Your task to perform on an android device: Go to calendar. Show me events next week Image 0: 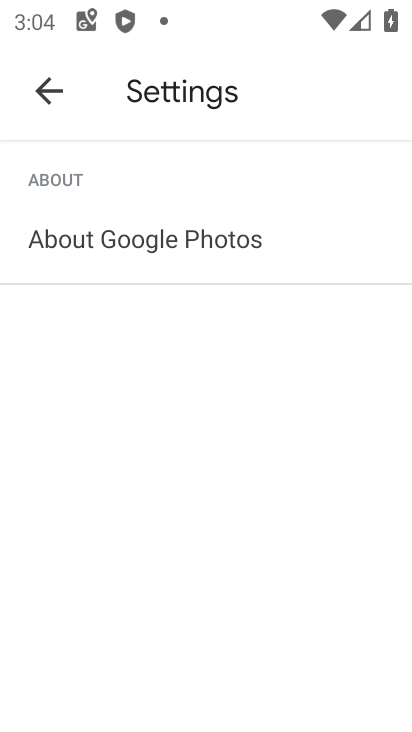
Step 0: press back button
Your task to perform on an android device: Go to calendar. Show me events next week Image 1: 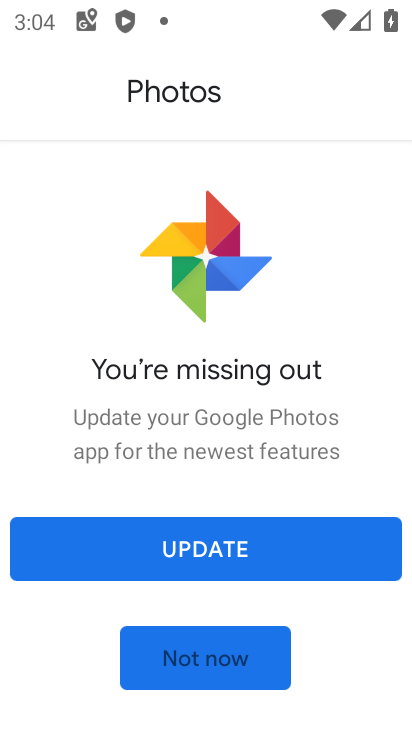
Step 1: click (199, 642)
Your task to perform on an android device: Go to calendar. Show me events next week Image 2: 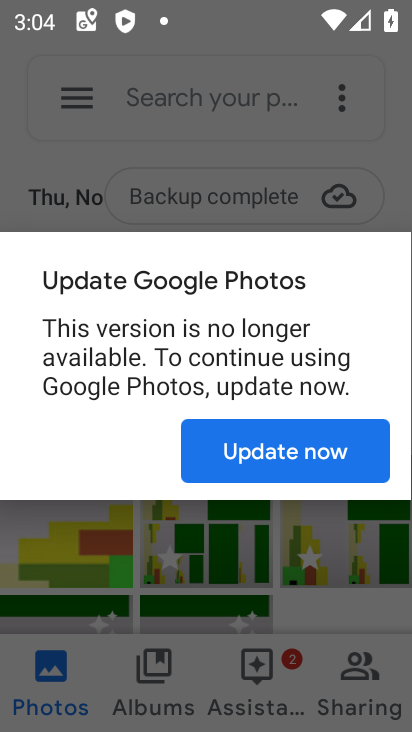
Step 2: press home button
Your task to perform on an android device: Go to calendar. Show me events next week Image 3: 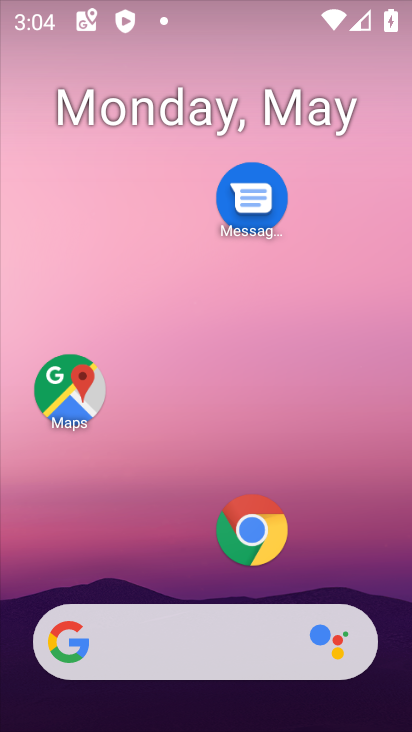
Step 3: drag from (136, 595) to (208, 126)
Your task to perform on an android device: Go to calendar. Show me events next week Image 4: 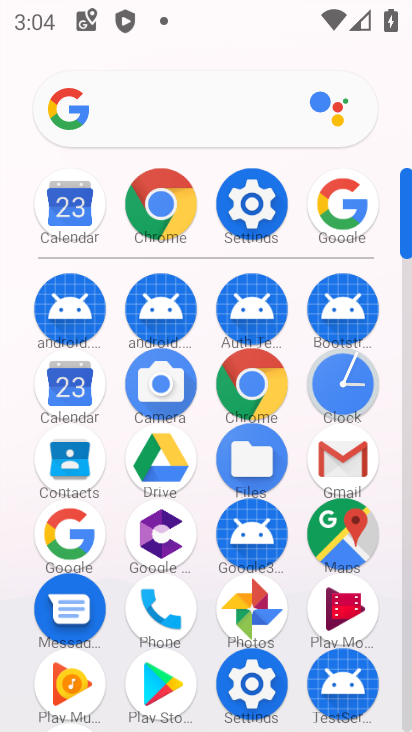
Step 4: click (74, 390)
Your task to perform on an android device: Go to calendar. Show me events next week Image 5: 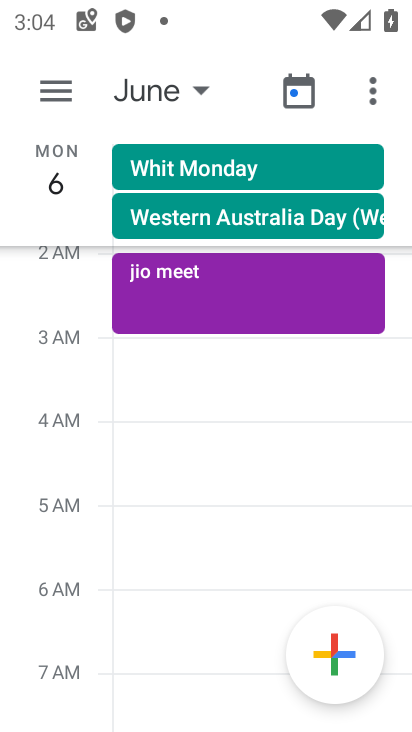
Step 5: click (168, 92)
Your task to perform on an android device: Go to calendar. Show me events next week Image 6: 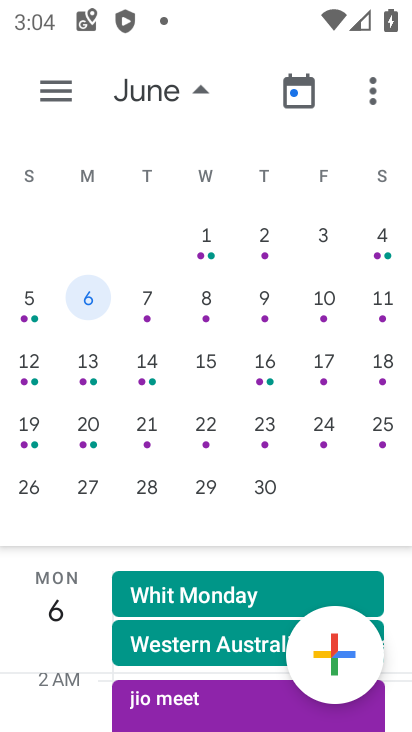
Step 6: drag from (44, 378) to (344, 382)
Your task to perform on an android device: Go to calendar. Show me events next week Image 7: 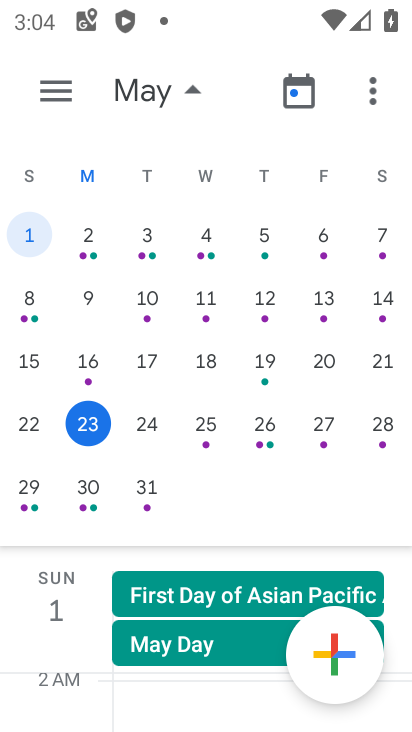
Step 7: click (92, 429)
Your task to perform on an android device: Go to calendar. Show me events next week Image 8: 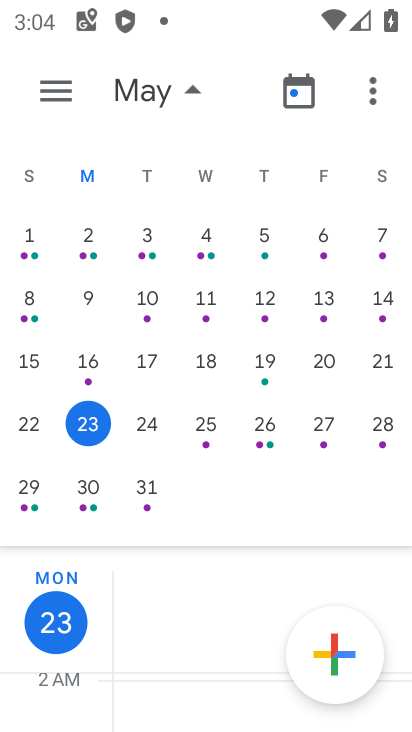
Step 8: click (53, 102)
Your task to perform on an android device: Go to calendar. Show me events next week Image 9: 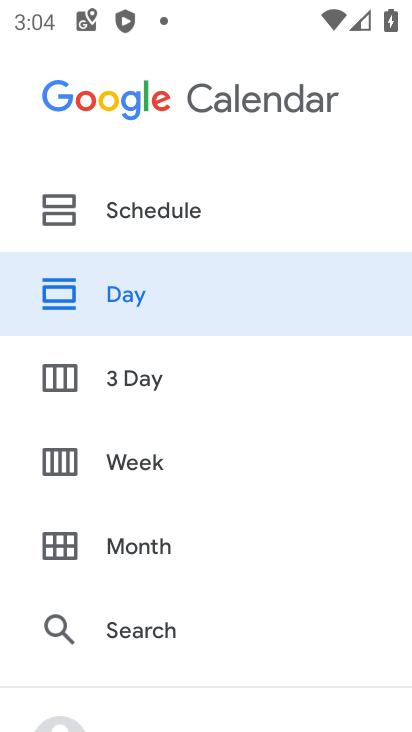
Step 9: click (147, 216)
Your task to perform on an android device: Go to calendar. Show me events next week Image 10: 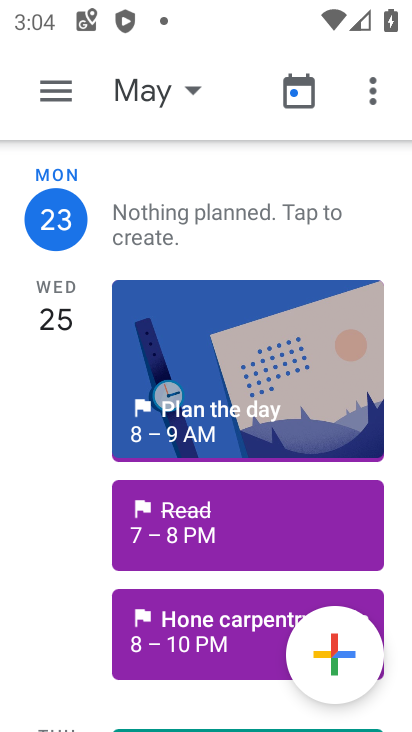
Step 10: click (159, 89)
Your task to perform on an android device: Go to calendar. Show me events next week Image 11: 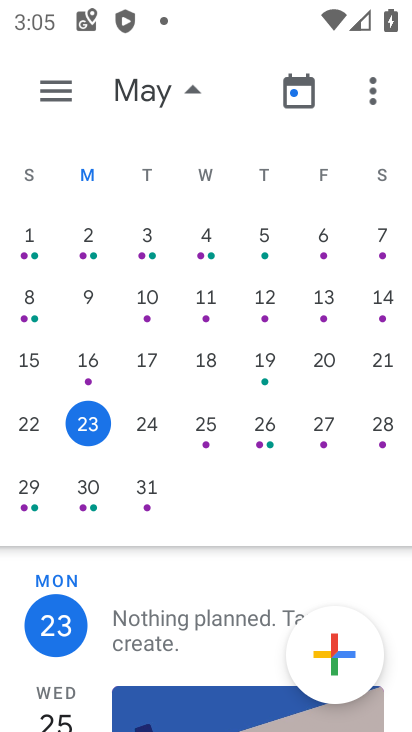
Step 11: click (73, 502)
Your task to perform on an android device: Go to calendar. Show me events next week Image 12: 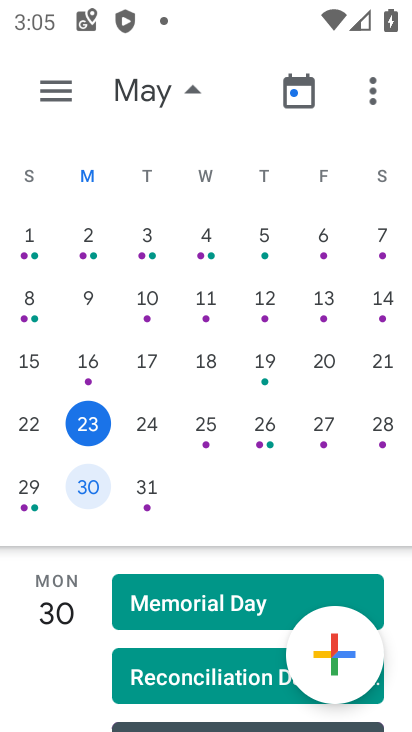
Step 12: drag from (155, 609) to (293, 54)
Your task to perform on an android device: Go to calendar. Show me events next week Image 13: 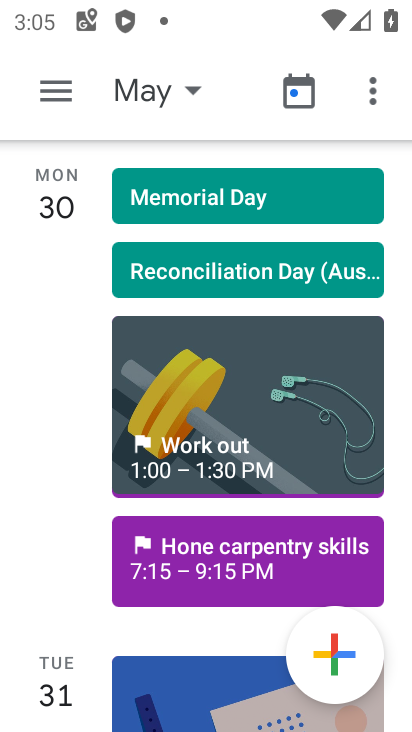
Step 13: click (193, 263)
Your task to perform on an android device: Go to calendar. Show me events next week Image 14: 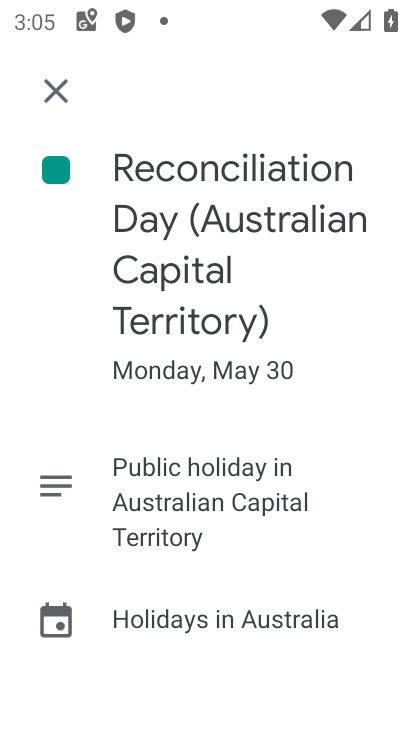
Step 14: task complete